Your task to perform on an android device: visit the assistant section in the google photos Image 0: 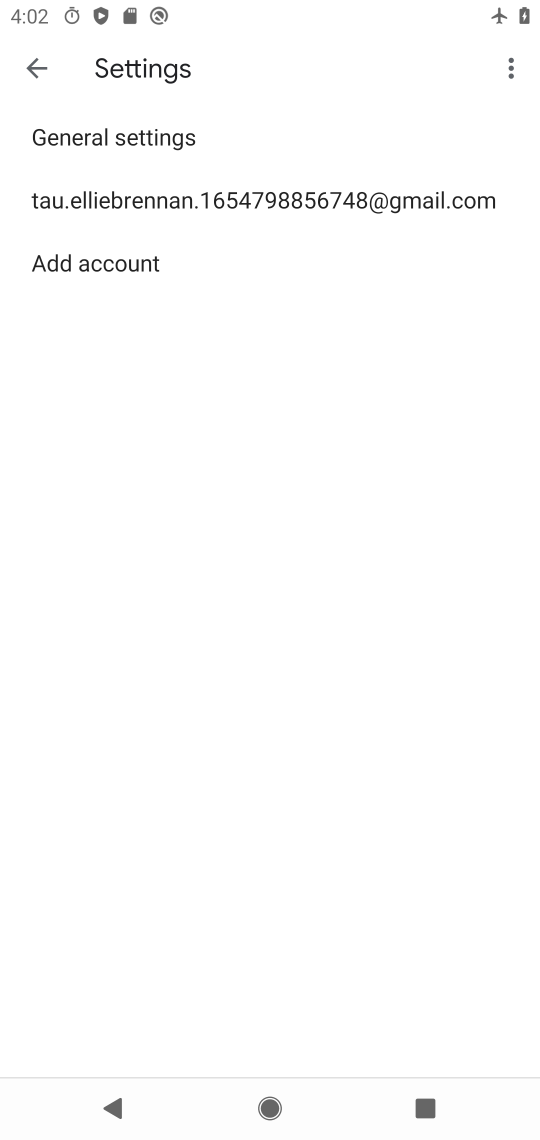
Step 0: press home button
Your task to perform on an android device: visit the assistant section in the google photos Image 1: 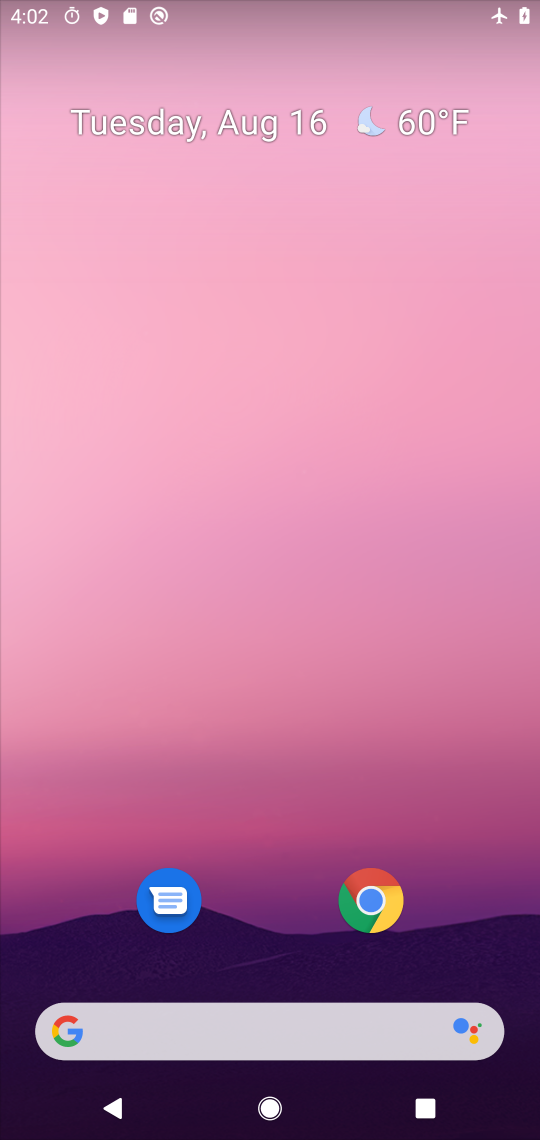
Step 1: drag from (289, 768) to (228, 72)
Your task to perform on an android device: visit the assistant section in the google photos Image 2: 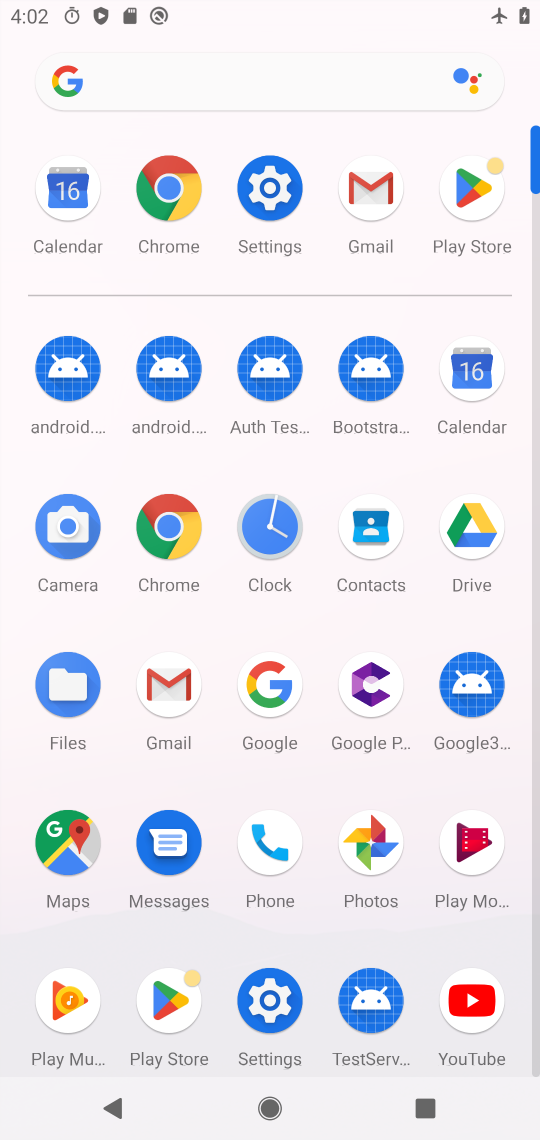
Step 2: click (367, 846)
Your task to perform on an android device: visit the assistant section in the google photos Image 3: 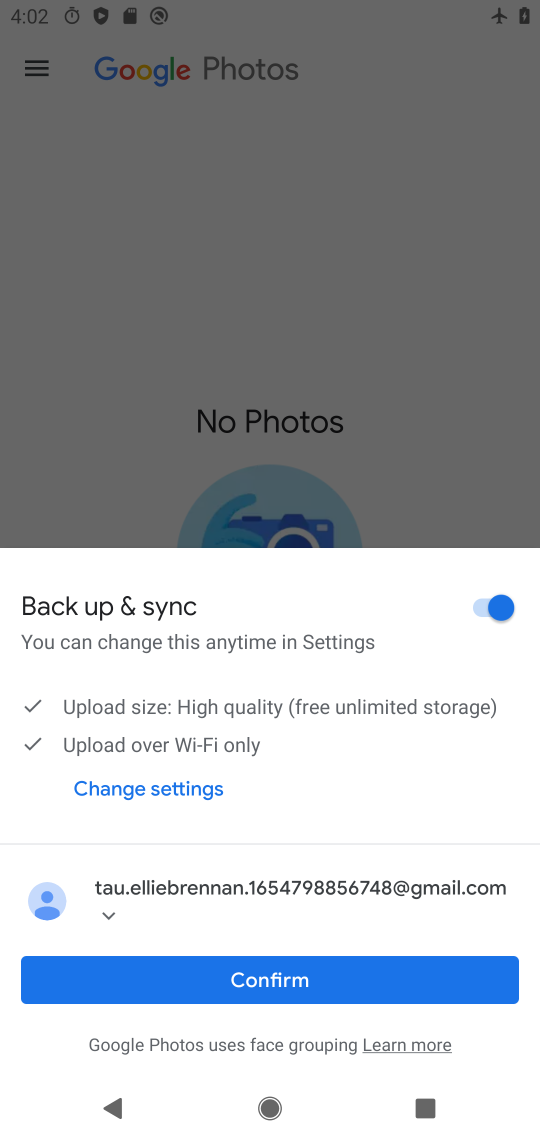
Step 3: click (262, 979)
Your task to perform on an android device: visit the assistant section in the google photos Image 4: 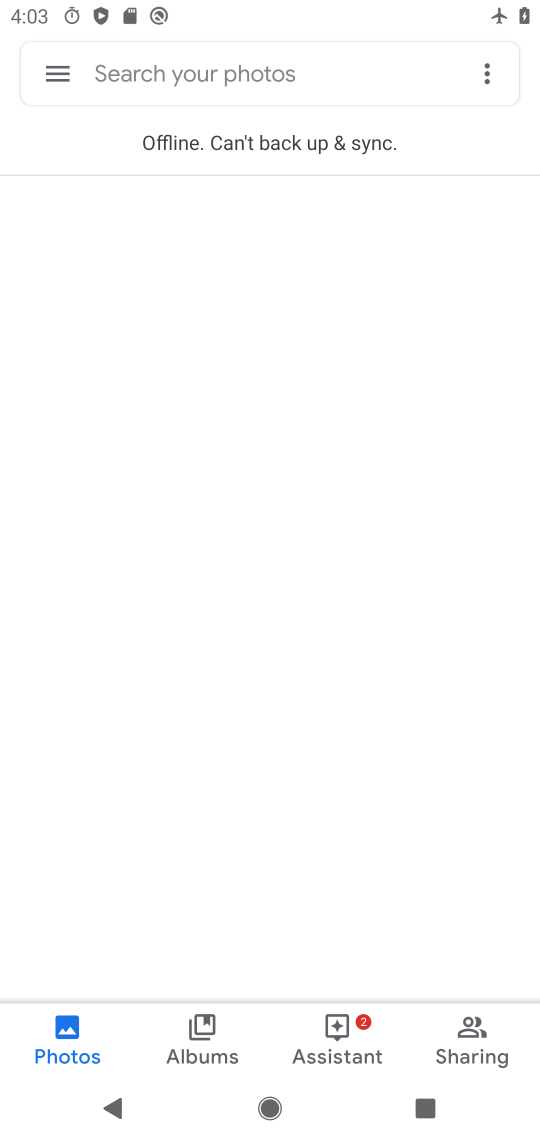
Step 4: click (329, 1029)
Your task to perform on an android device: visit the assistant section in the google photos Image 5: 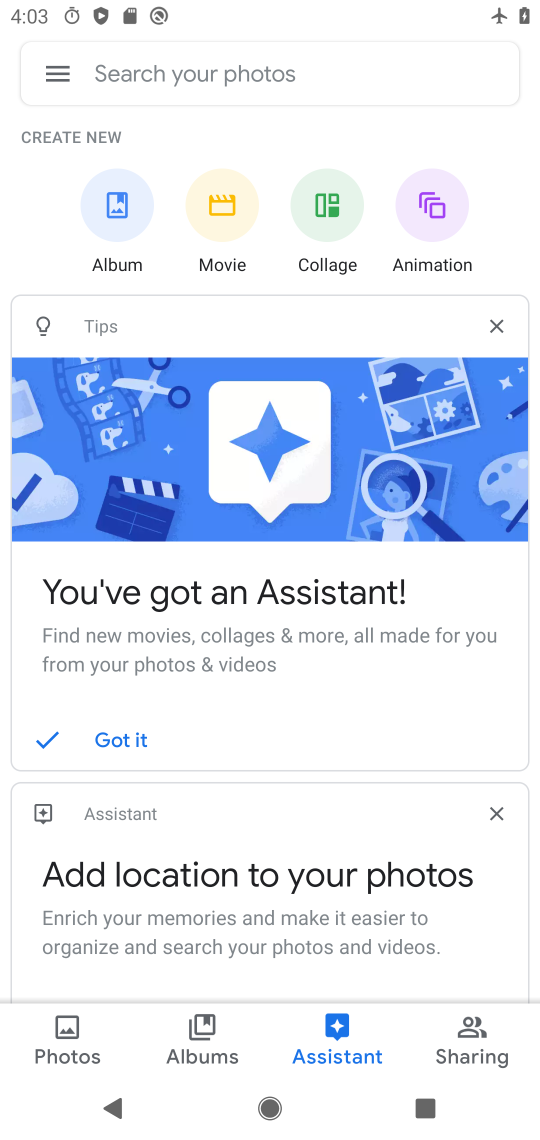
Step 5: task complete